Your task to perform on an android device: Open CNN.com Image 0: 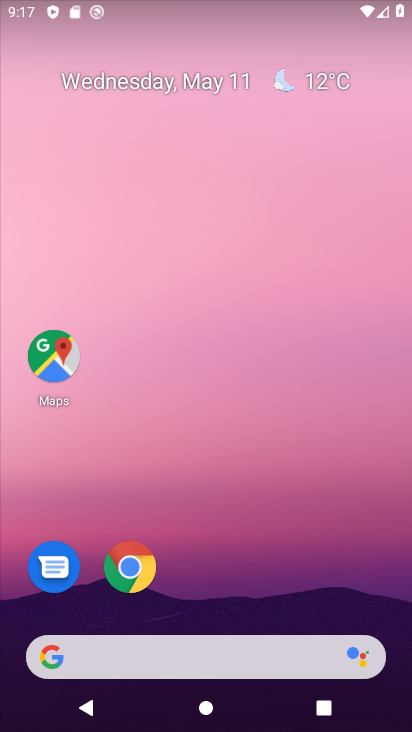
Step 0: click (132, 572)
Your task to perform on an android device: Open CNN.com Image 1: 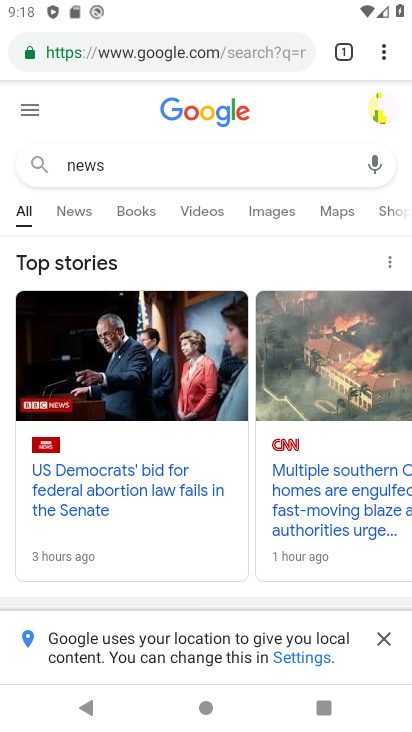
Step 1: click (177, 49)
Your task to perform on an android device: Open CNN.com Image 2: 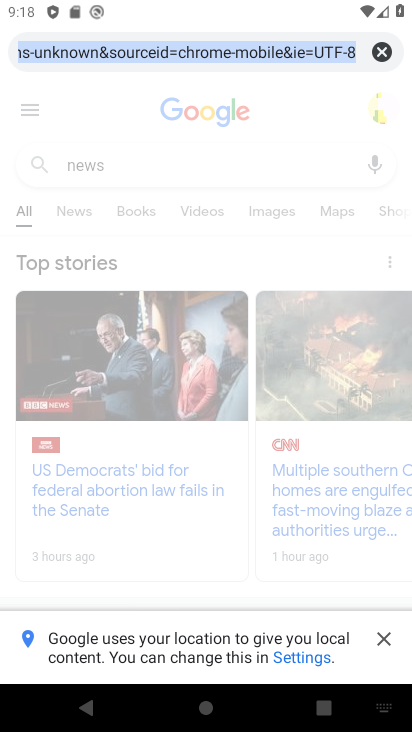
Step 2: type "CNN.com"
Your task to perform on an android device: Open CNN.com Image 3: 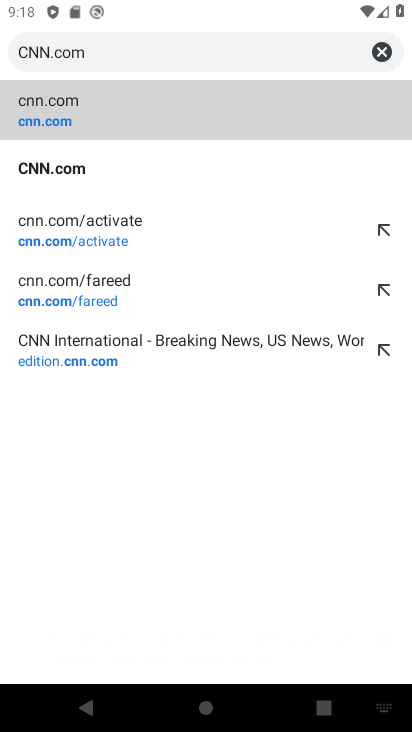
Step 3: click (72, 177)
Your task to perform on an android device: Open CNN.com Image 4: 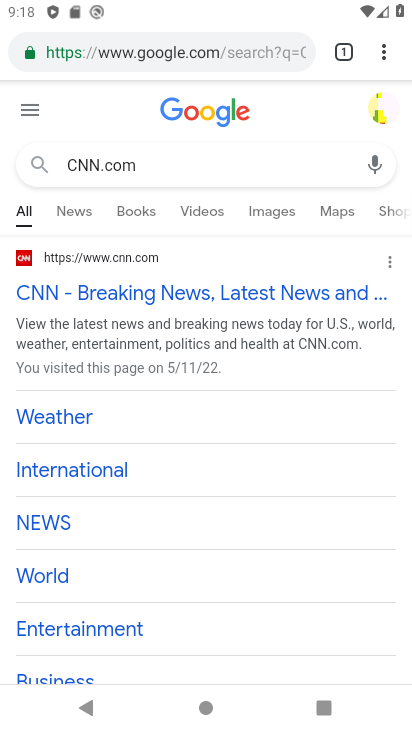
Step 4: task complete